Your task to perform on an android device: open app "DoorDash - Dasher" (install if not already installed) Image 0: 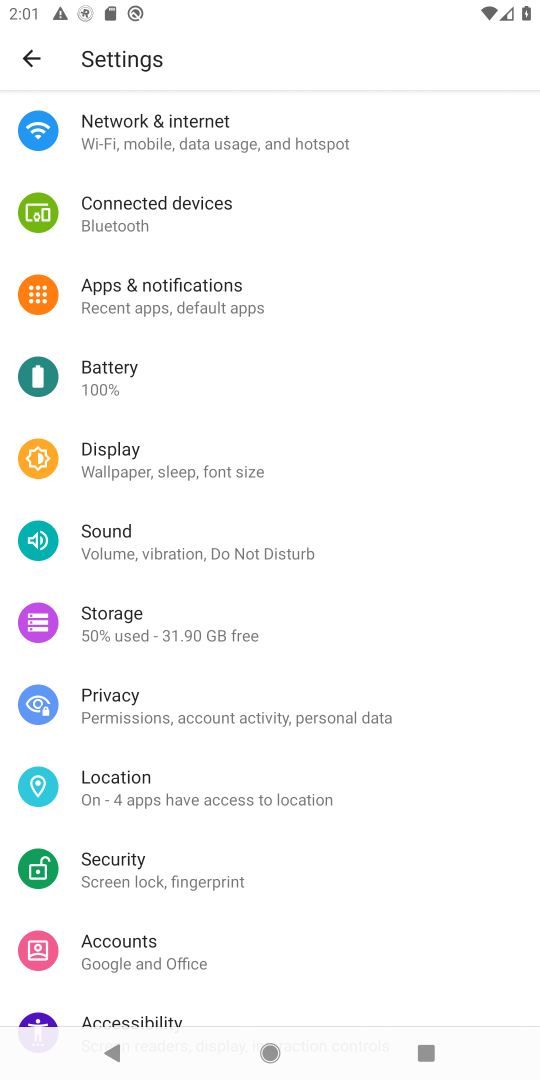
Step 0: type "instagram"
Your task to perform on an android device: open app "DoorDash - Dasher" (install if not already installed) Image 1: 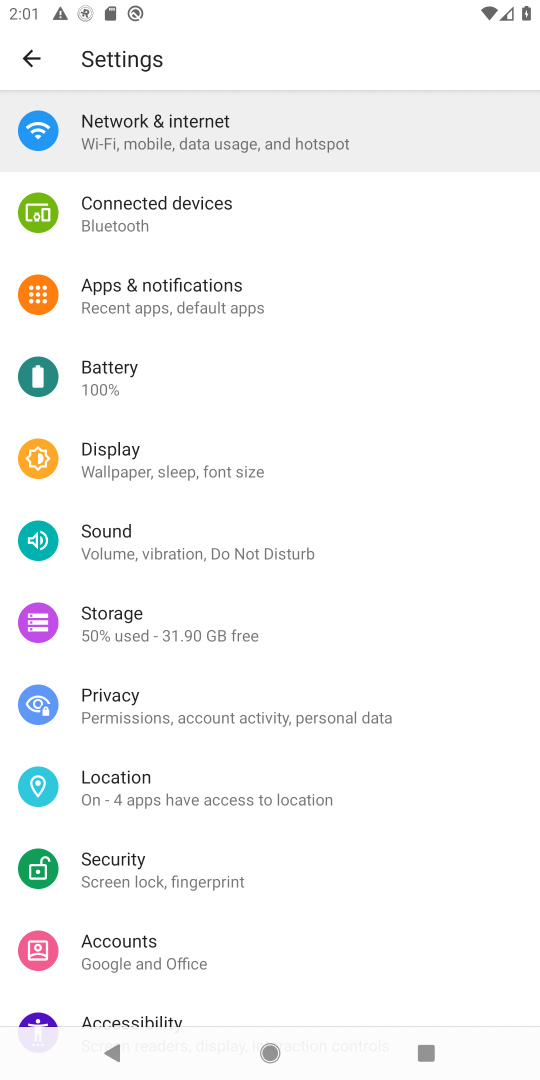
Step 1: press home button
Your task to perform on an android device: open app "DoorDash - Dasher" (install if not already installed) Image 2: 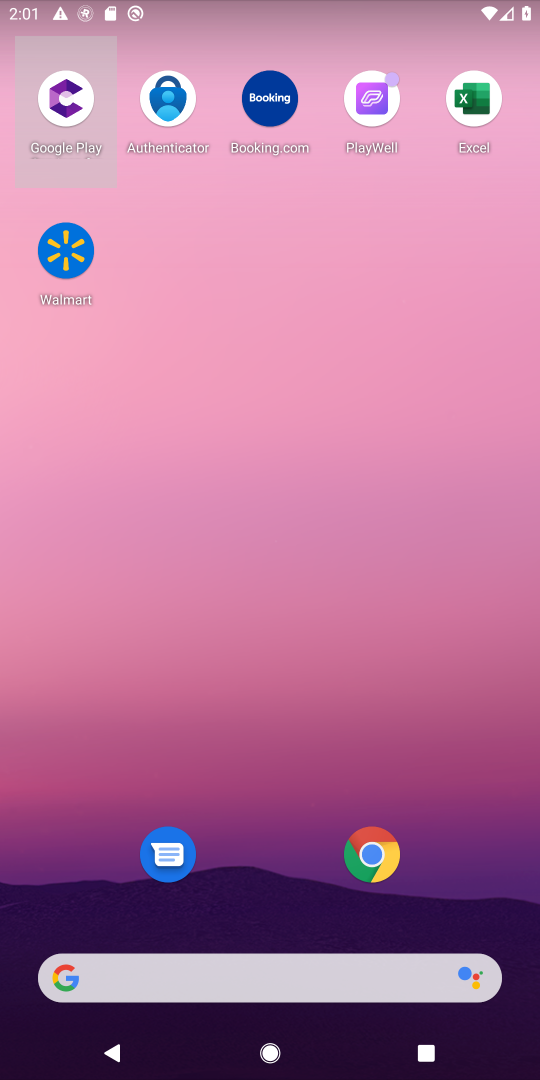
Step 2: drag from (303, 1075) to (280, 302)
Your task to perform on an android device: open app "DoorDash - Dasher" (install if not already installed) Image 3: 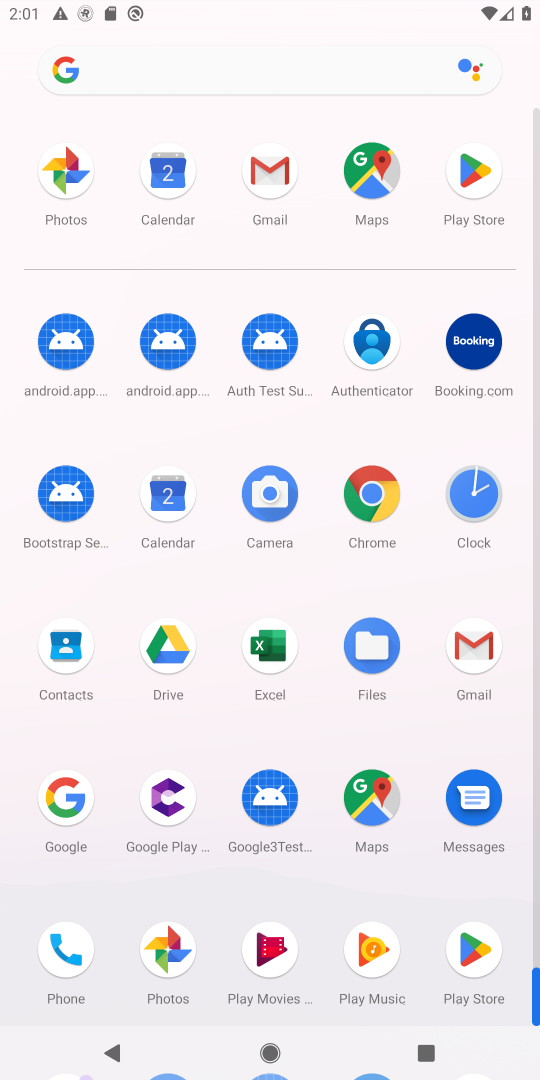
Step 3: click (471, 955)
Your task to perform on an android device: open app "DoorDash - Dasher" (install if not already installed) Image 4: 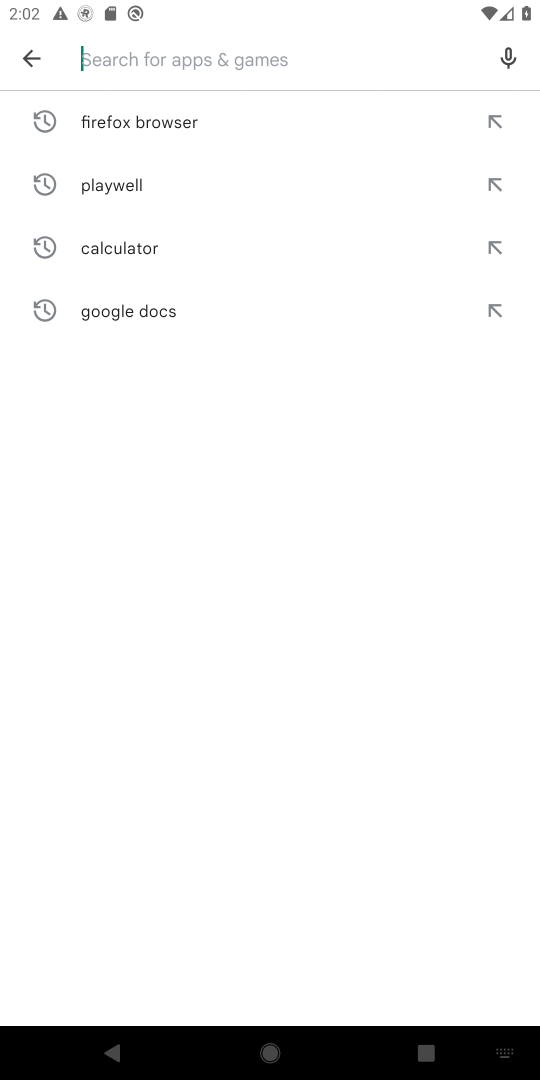
Step 4: type "DoorDash - Dasher"
Your task to perform on an android device: open app "DoorDash - Dasher" (install if not already installed) Image 5: 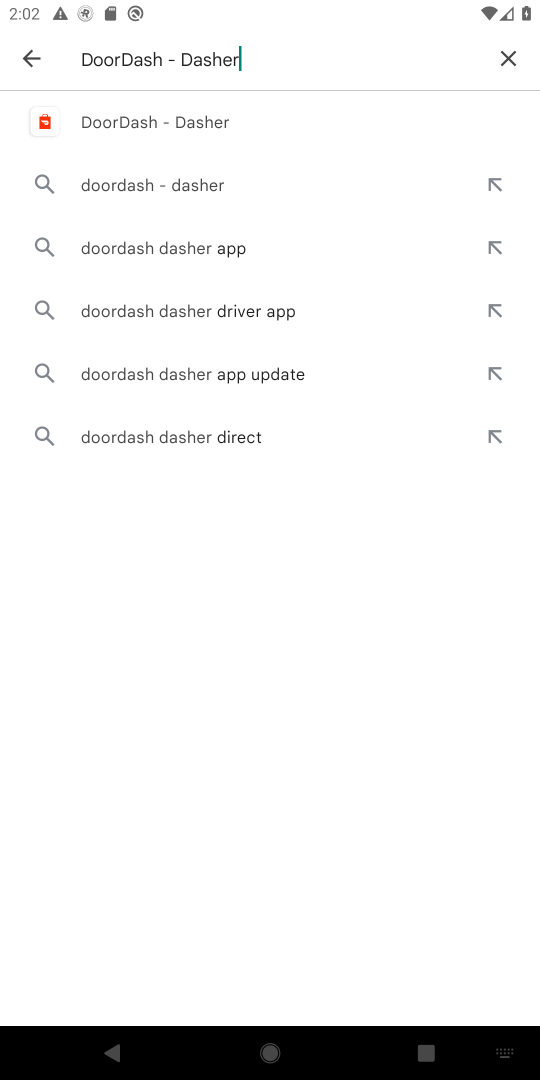
Step 5: click (132, 117)
Your task to perform on an android device: open app "DoorDash - Dasher" (install if not already installed) Image 6: 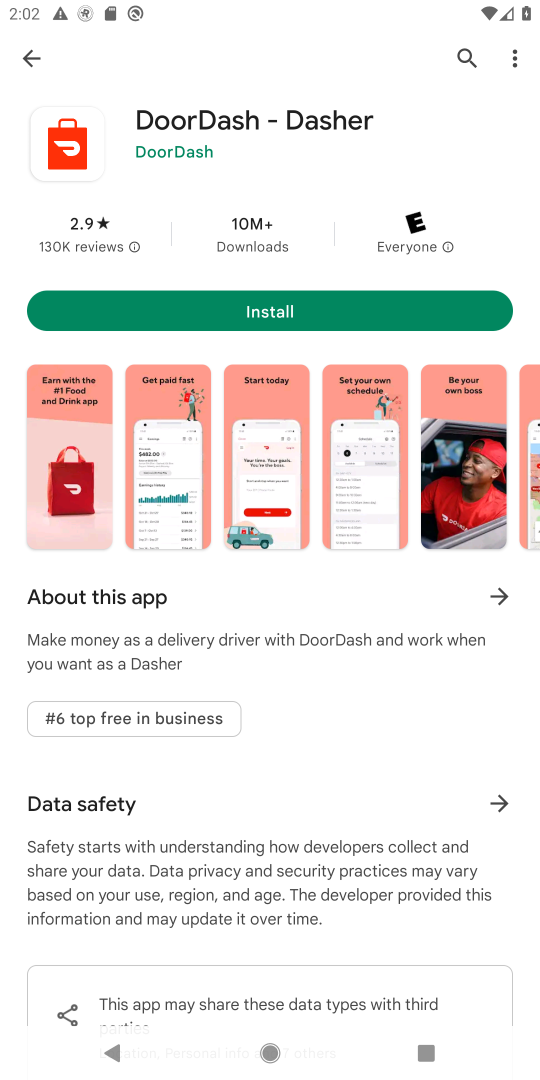
Step 6: click (233, 307)
Your task to perform on an android device: open app "DoorDash - Dasher" (install if not already installed) Image 7: 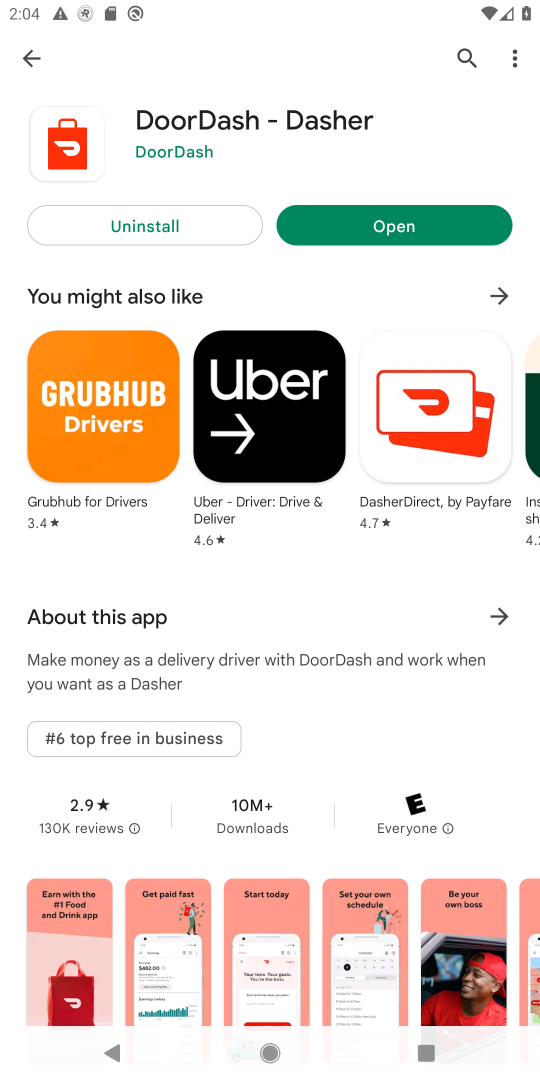
Step 7: click (451, 225)
Your task to perform on an android device: open app "DoorDash - Dasher" (install if not already installed) Image 8: 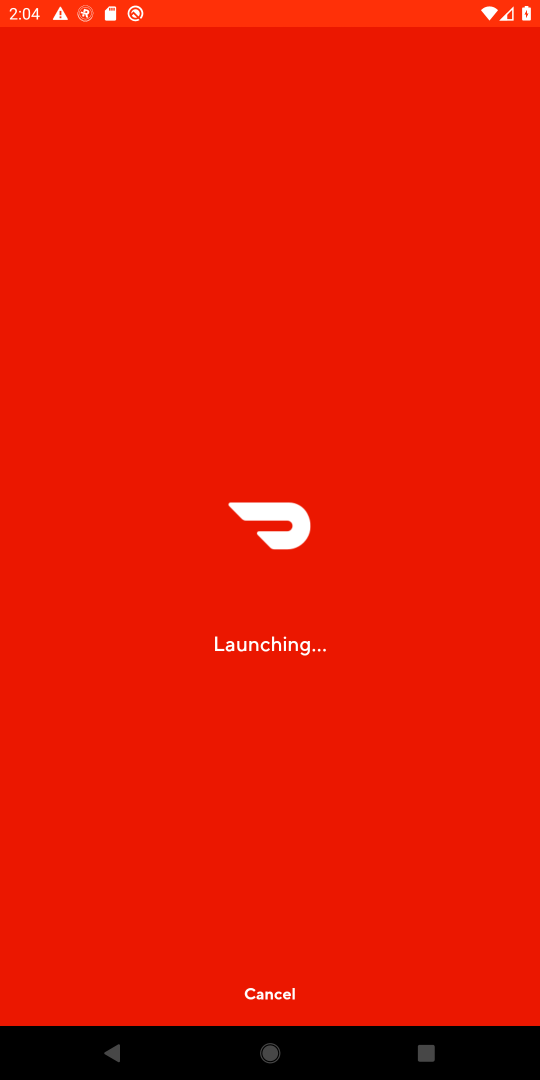
Step 8: task complete